Your task to perform on an android device: move a message to another label in the gmail app Image 0: 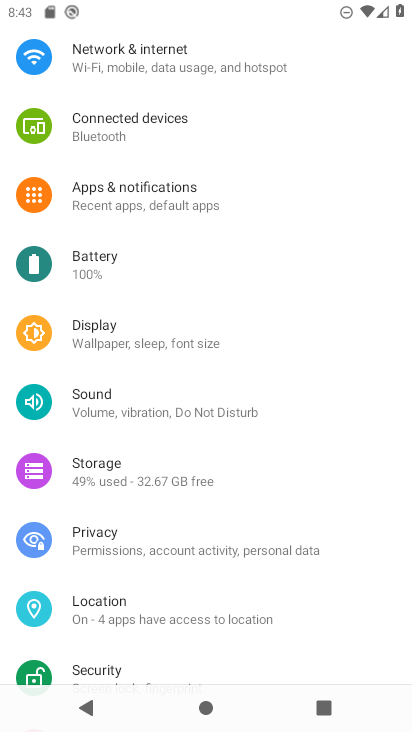
Step 0: press home button
Your task to perform on an android device: move a message to another label in the gmail app Image 1: 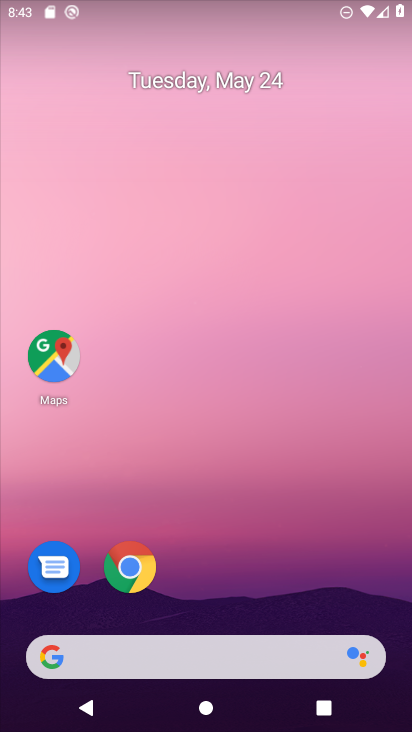
Step 1: drag from (137, 647) to (305, 101)
Your task to perform on an android device: move a message to another label in the gmail app Image 2: 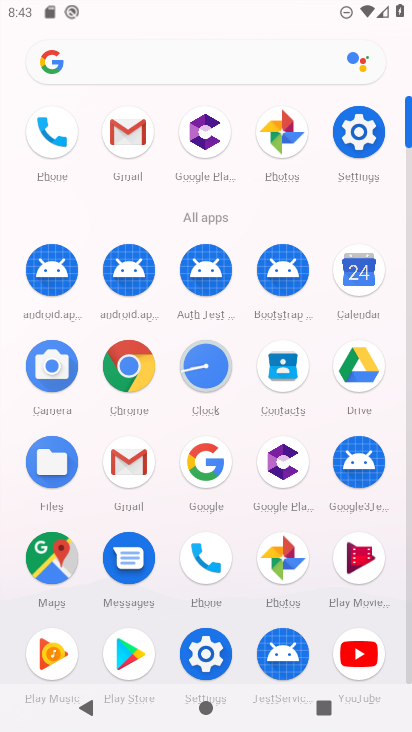
Step 2: click (134, 148)
Your task to perform on an android device: move a message to another label in the gmail app Image 3: 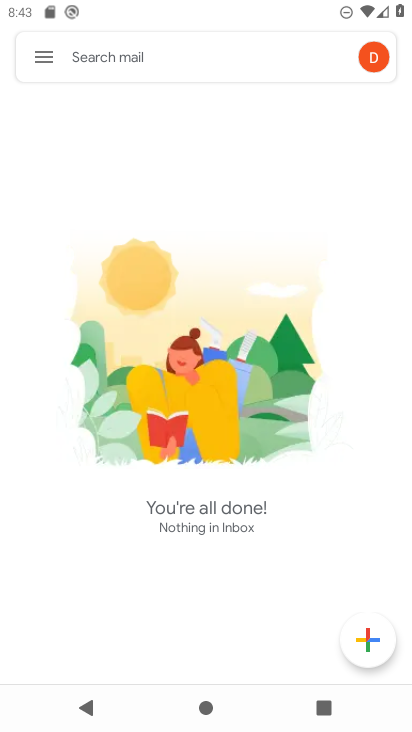
Step 3: task complete